Your task to perform on an android device: Go to Google Image 0: 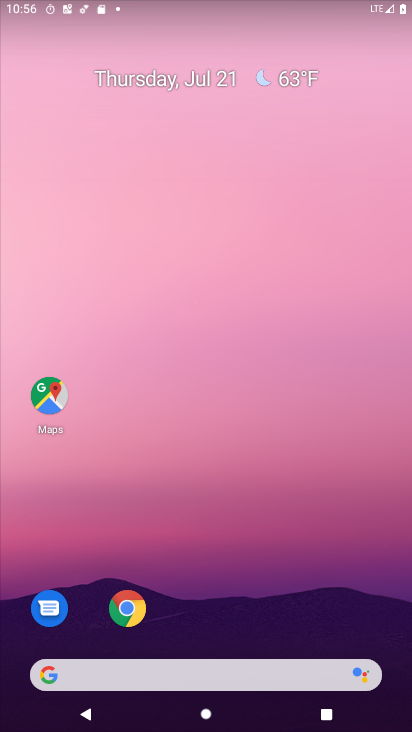
Step 0: drag from (223, 549) to (248, 135)
Your task to perform on an android device: Go to Google Image 1: 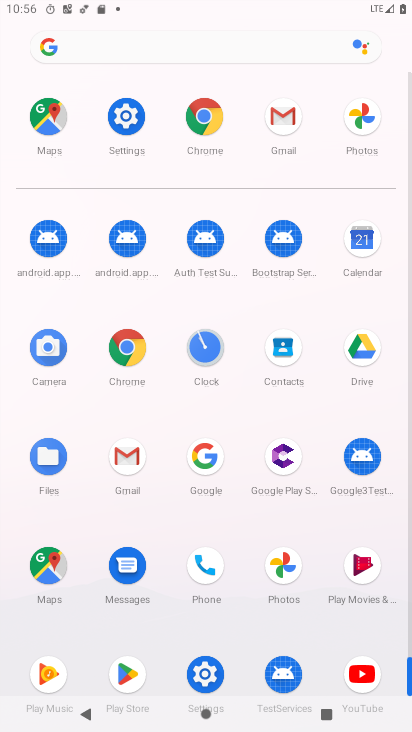
Step 1: click (208, 470)
Your task to perform on an android device: Go to Google Image 2: 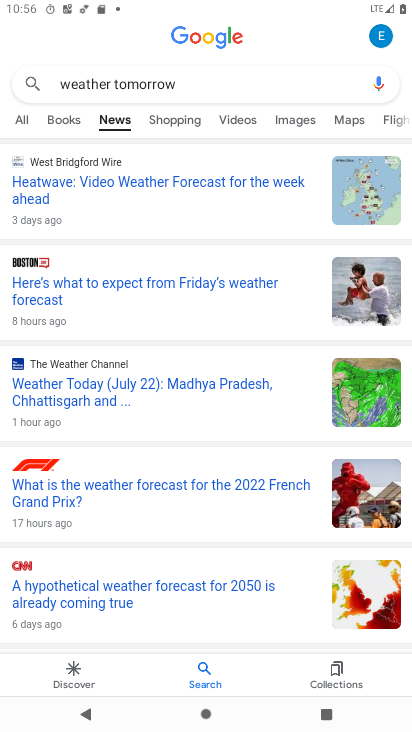
Step 2: click (25, 126)
Your task to perform on an android device: Go to Google Image 3: 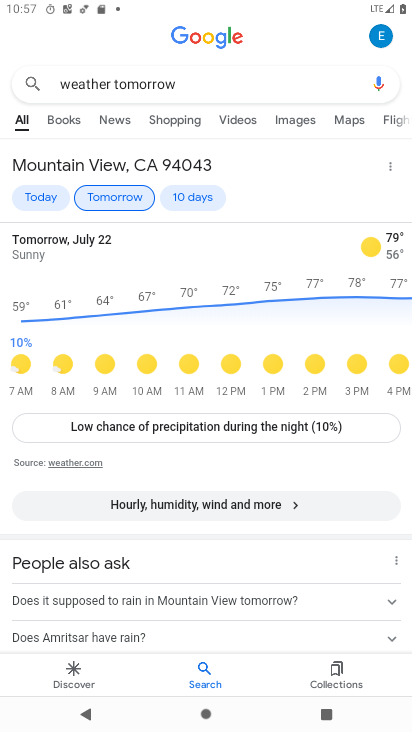
Step 3: task complete